Your task to perform on an android device: turn on the 12-hour format for clock Image 0: 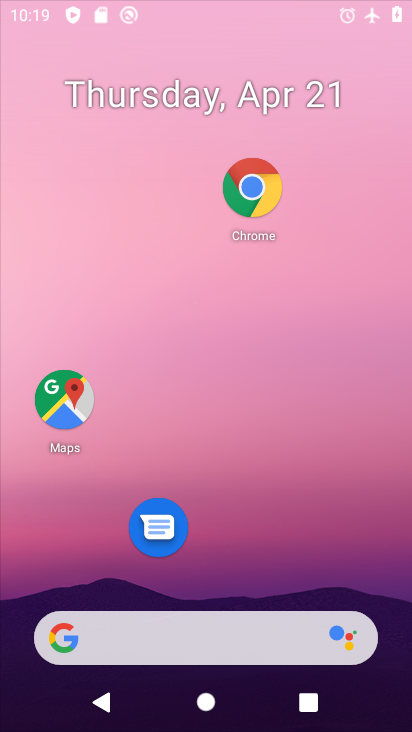
Step 0: click (280, 248)
Your task to perform on an android device: turn on the 12-hour format for clock Image 1: 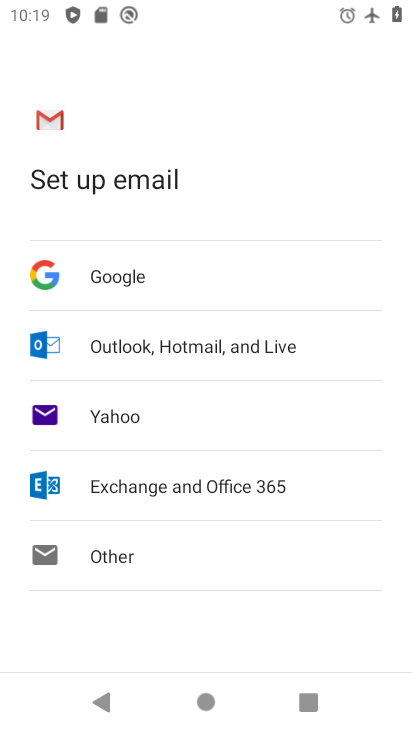
Step 1: press home button
Your task to perform on an android device: turn on the 12-hour format for clock Image 2: 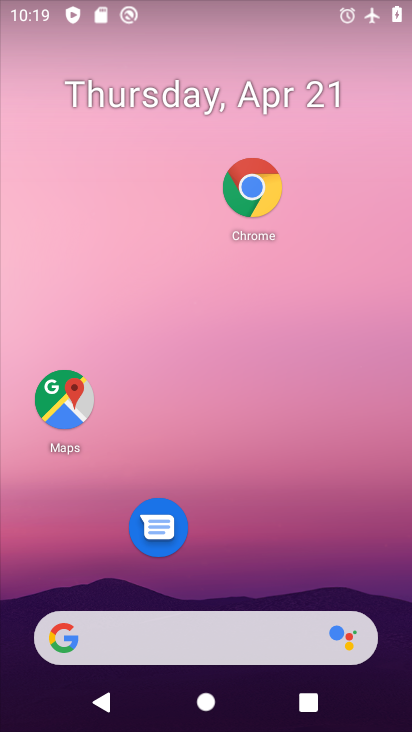
Step 2: drag from (284, 586) to (374, 160)
Your task to perform on an android device: turn on the 12-hour format for clock Image 3: 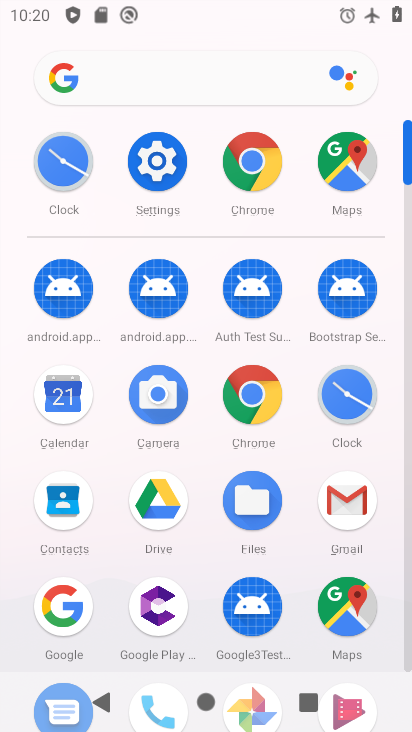
Step 3: click (339, 400)
Your task to perform on an android device: turn on the 12-hour format for clock Image 4: 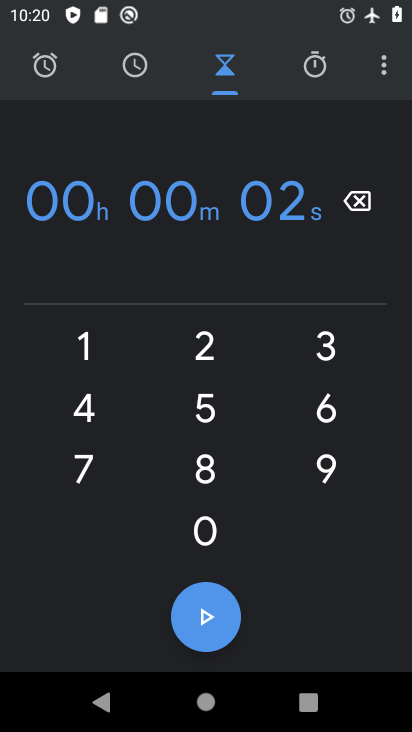
Step 4: click (391, 73)
Your task to perform on an android device: turn on the 12-hour format for clock Image 5: 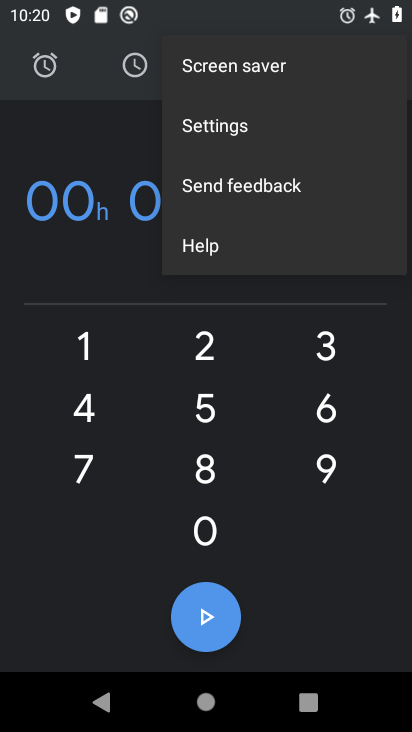
Step 5: click (254, 129)
Your task to perform on an android device: turn on the 12-hour format for clock Image 6: 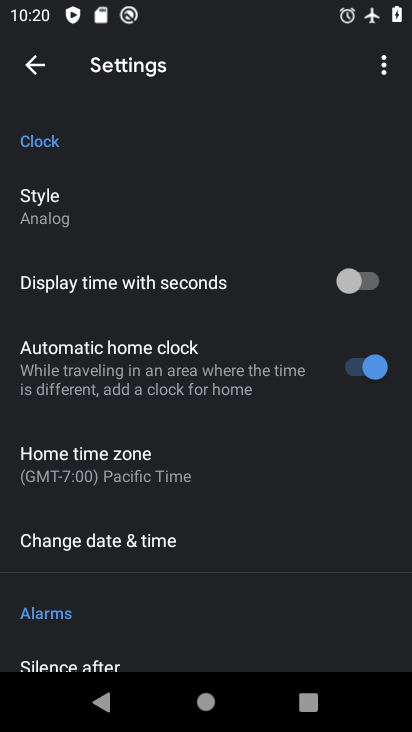
Step 6: click (230, 550)
Your task to perform on an android device: turn on the 12-hour format for clock Image 7: 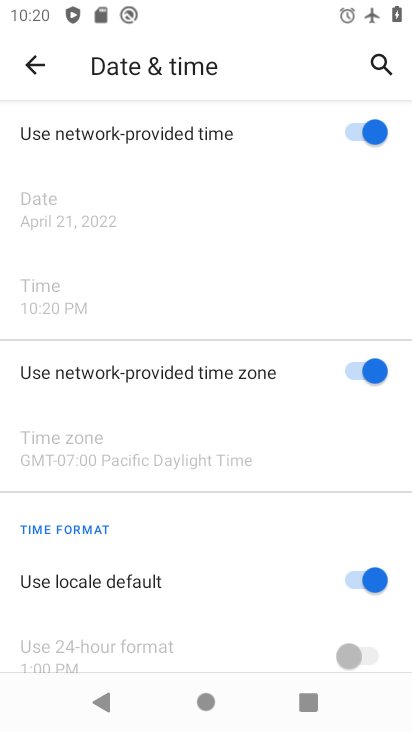
Step 7: task complete